Your task to perform on an android device: Go to Google Image 0: 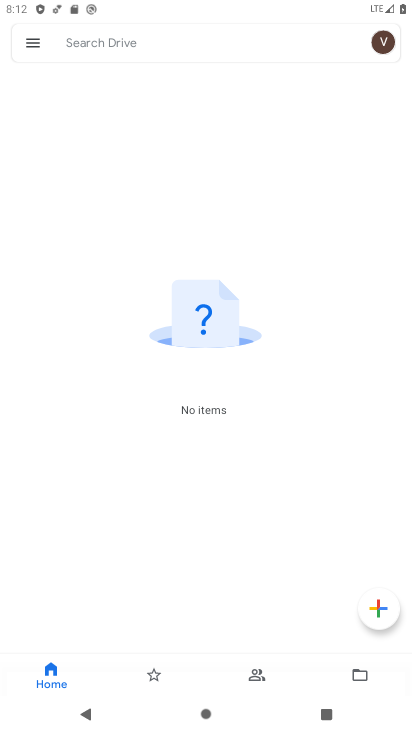
Step 0: press home button
Your task to perform on an android device: Go to Google Image 1: 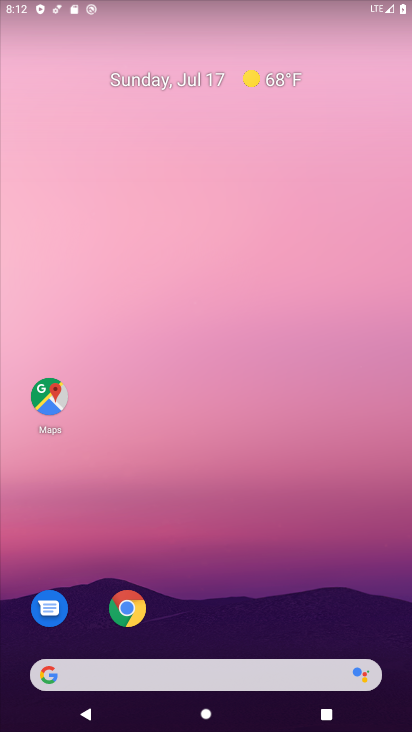
Step 1: drag from (265, 610) to (278, 37)
Your task to perform on an android device: Go to Google Image 2: 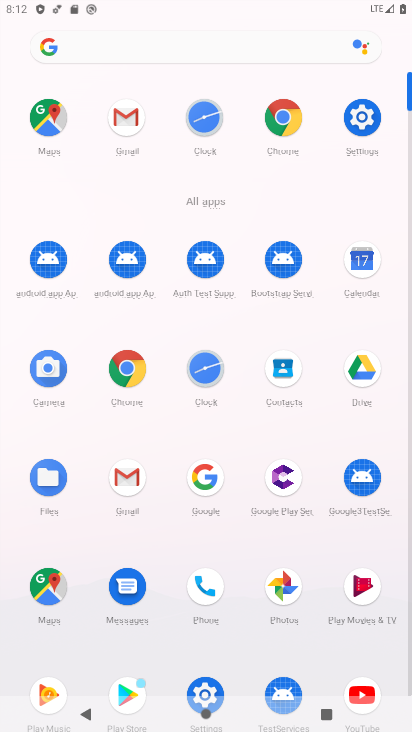
Step 2: click (199, 475)
Your task to perform on an android device: Go to Google Image 3: 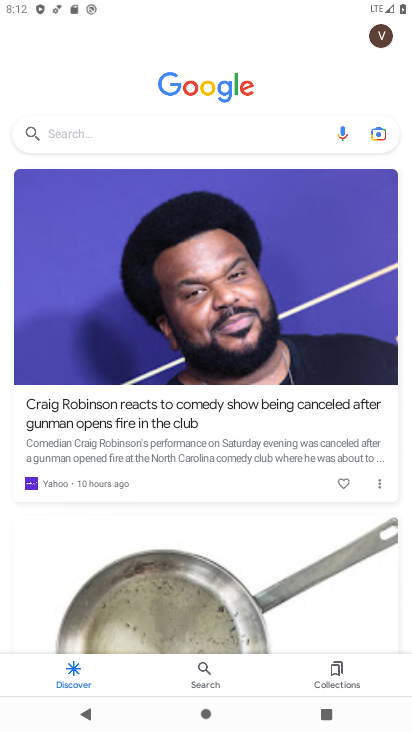
Step 3: task complete